Your task to perform on an android device: What's the weather? Image 0: 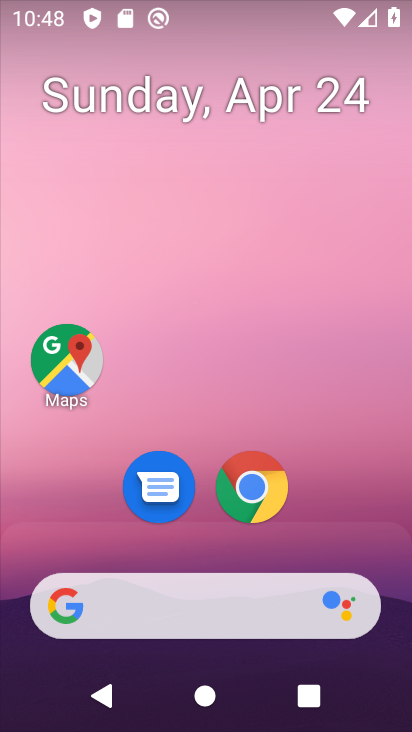
Step 0: click (139, 619)
Your task to perform on an android device: What's the weather? Image 1: 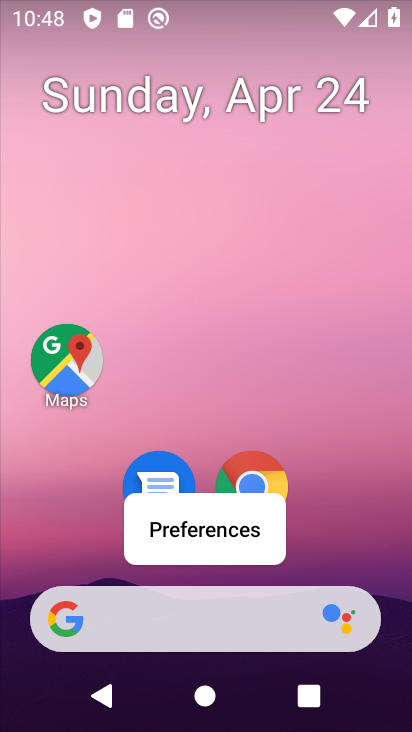
Step 1: click (166, 612)
Your task to perform on an android device: What's the weather? Image 2: 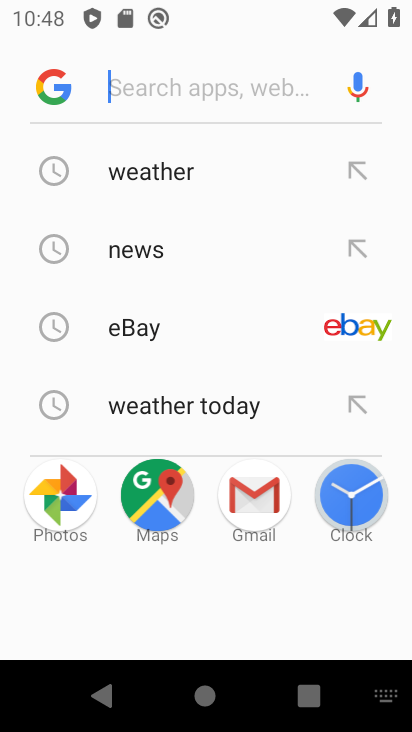
Step 2: click (138, 181)
Your task to perform on an android device: What's the weather? Image 3: 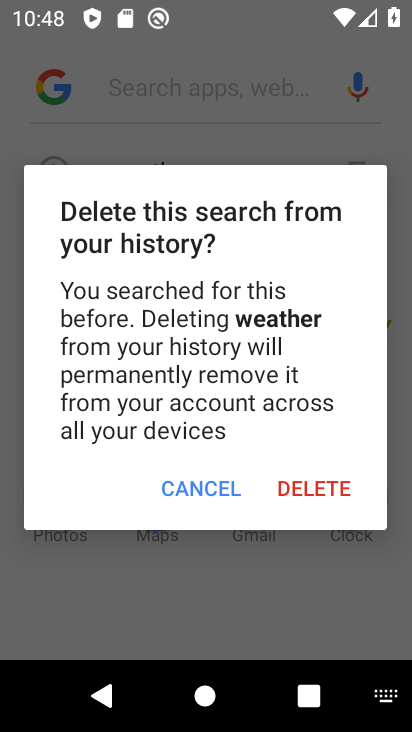
Step 3: click (192, 488)
Your task to perform on an android device: What's the weather? Image 4: 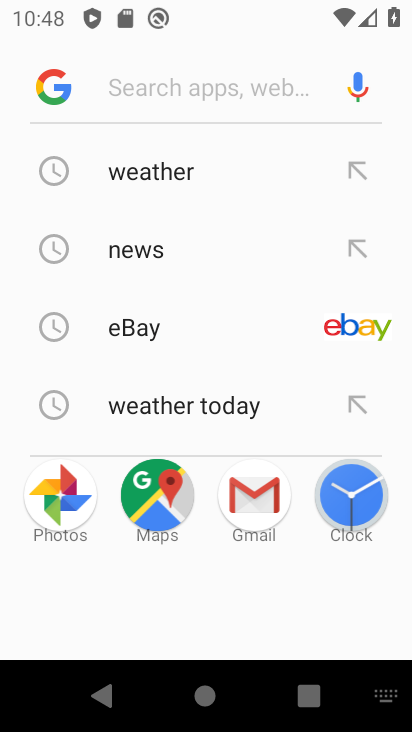
Step 4: click (355, 162)
Your task to perform on an android device: What's the weather? Image 5: 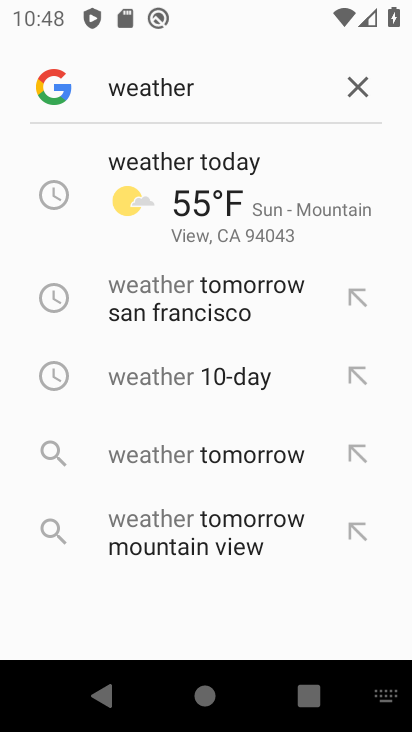
Step 5: task complete